Your task to perform on an android device: Go to Google Image 0: 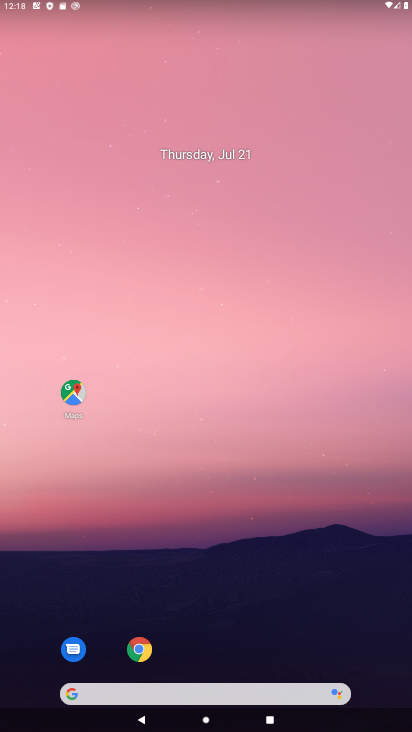
Step 0: click (137, 651)
Your task to perform on an android device: Go to Google Image 1: 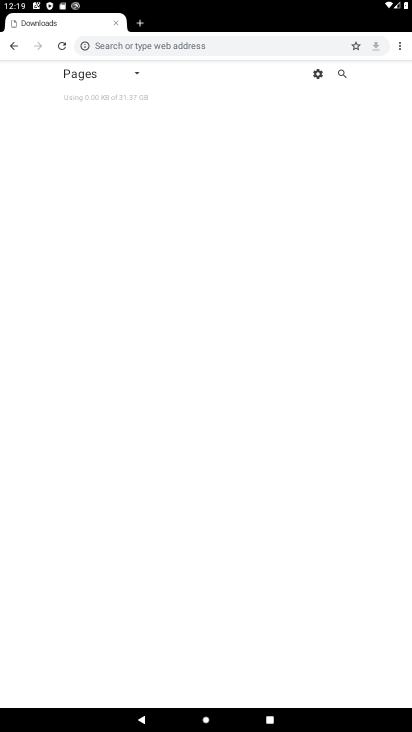
Step 1: task complete